Your task to perform on an android device: Go to display settings Image 0: 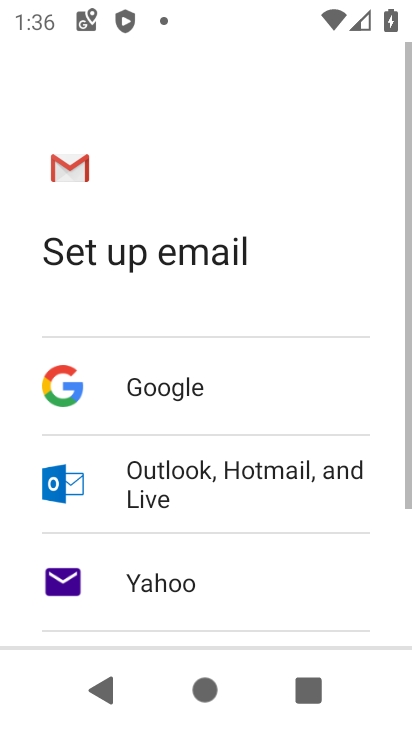
Step 0: press home button
Your task to perform on an android device: Go to display settings Image 1: 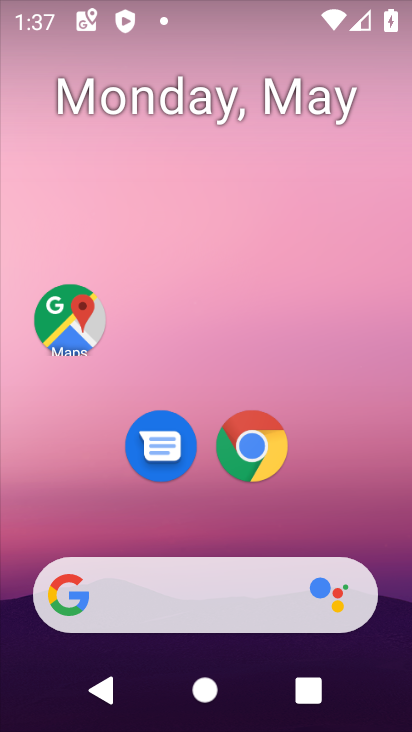
Step 1: drag from (199, 584) to (276, 18)
Your task to perform on an android device: Go to display settings Image 2: 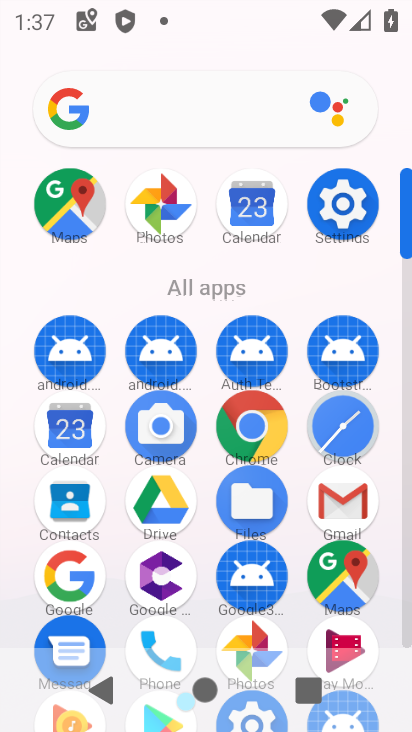
Step 2: click (347, 237)
Your task to perform on an android device: Go to display settings Image 3: 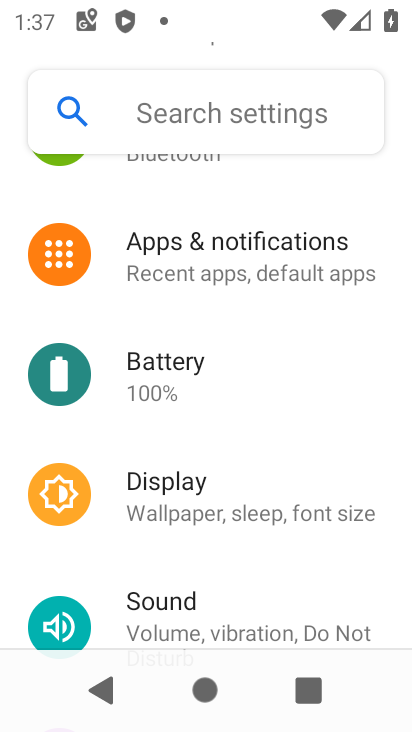
Step 3: click (246, 523)
Your task to perform on an android device: Go to display settings Image 4: 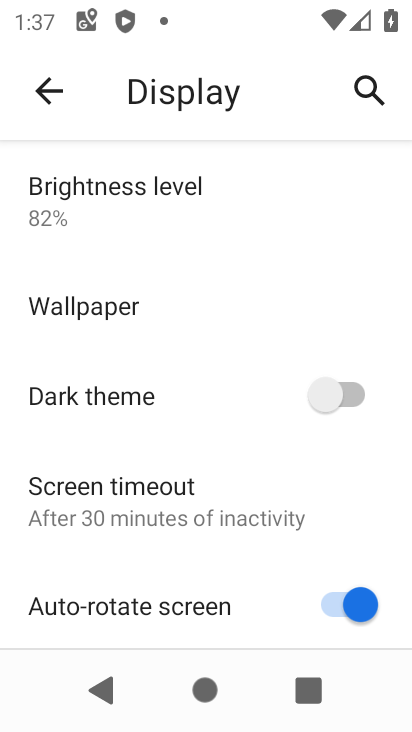
Step 4: task complete